Your task to perform on an android device: turn off data saver in the chrome app Image 0: 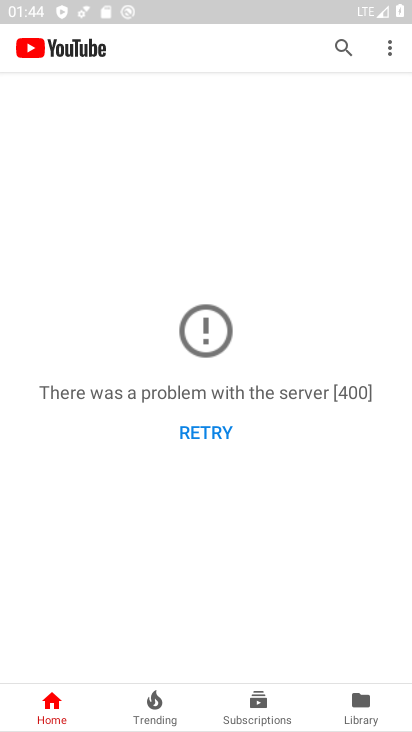
Step 0: press home button
Your task to perform on an android device: turn off data saver in the chrome app Image 1: 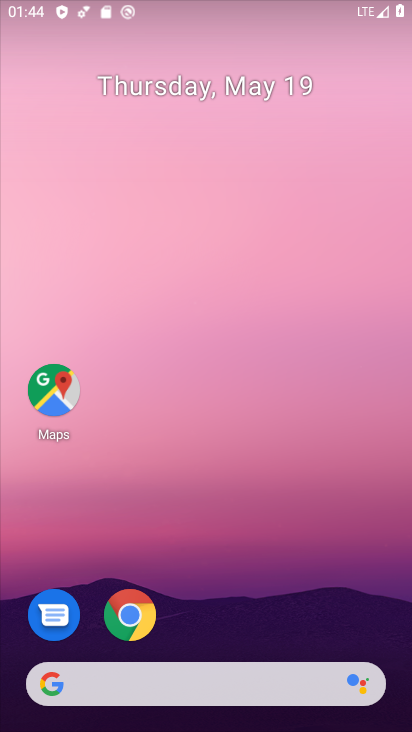
Step 1: drag from (267, 594) to (281, 237)
Your task to perform on an android device: turn off data saver in the chrome app Image 2: 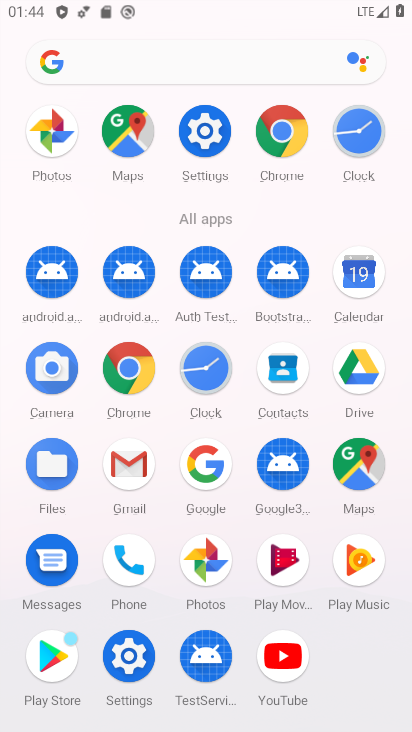
Step 2: click (277, 119)
Your task to perform on an android device: turn off data saver in the chrome app Image 3: 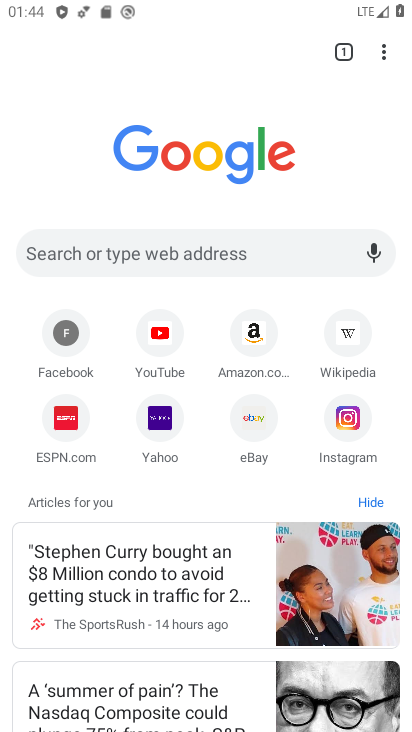
Step 3: click (387, 46)
Your task to perform on an android device: turn off data saver in the chrome app Image 4: 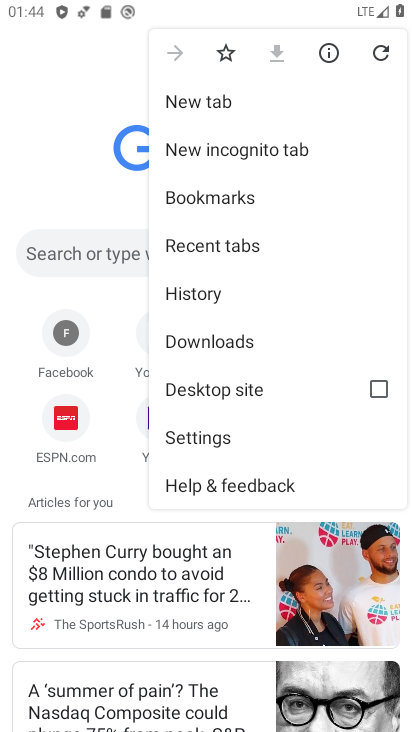
Step 4: click (226, 442)
Your task to perform on an android device: turn off data saver in the chrome app Image 5: 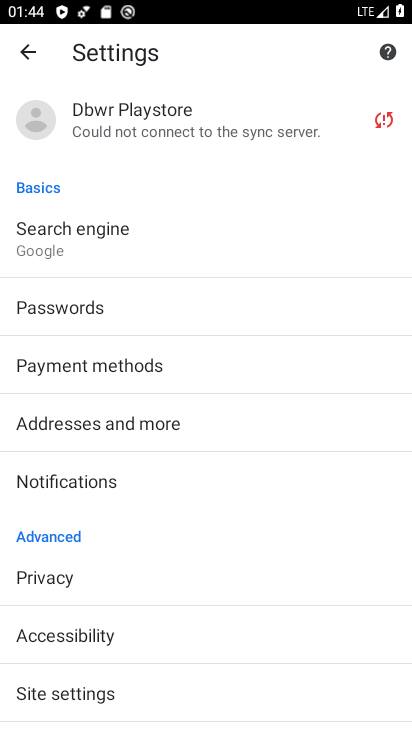
Step 5: drag from (171, 562) to (179, 162)
Your task to perform on an android device: turn off data saver in the chrome app Image 6: 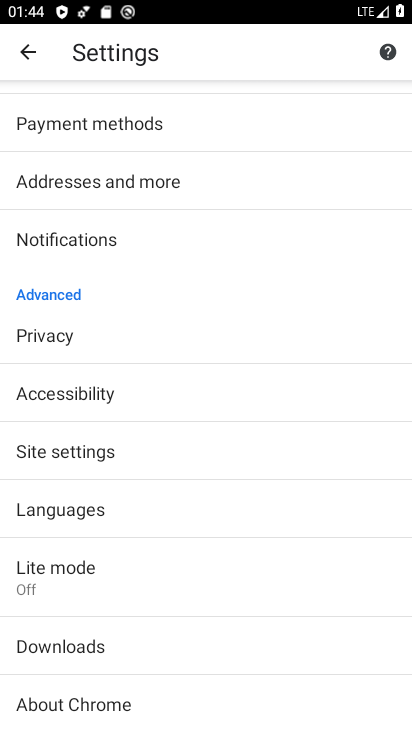
Step 6: click (76, 585)
Your task to perform on an android device: turn off data saver in the chrome app Image 7: 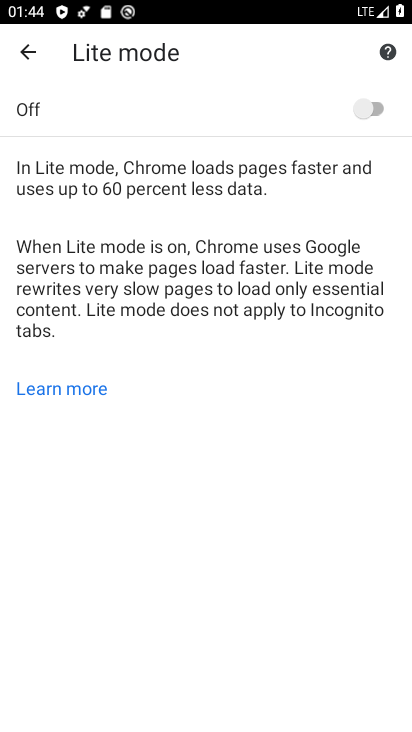
Step 7: task complete